Your task to perform on an android device: manage bookmarks in the chrome app Image 0: 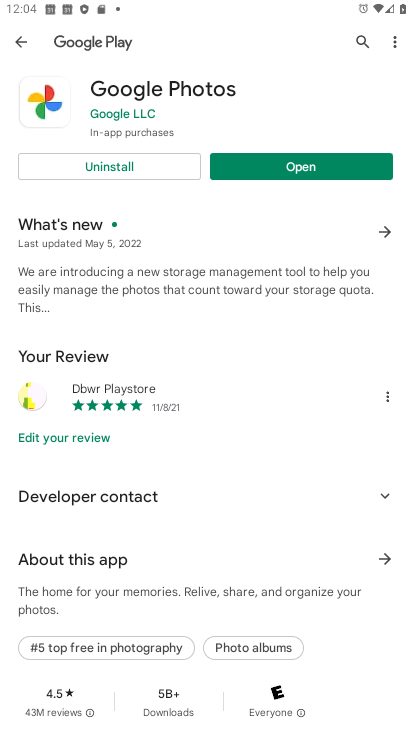
Step 0: drag from (181, 605) to (187, 163)
Your task to perform on an android device: manage bookmarks in the chrome app Image 1: 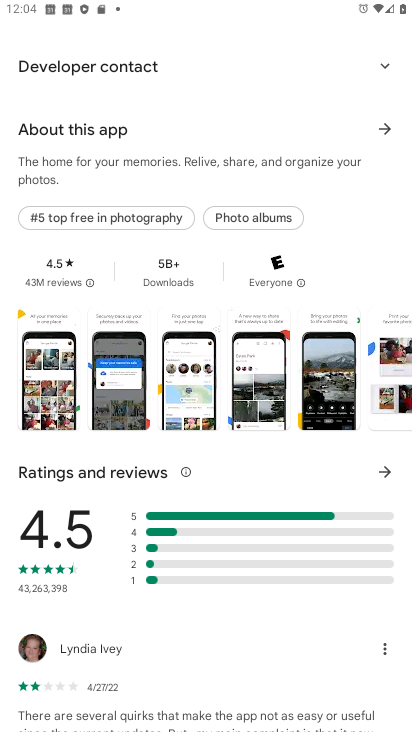
Step 1: drag from (227, 261) to (289, 707)
Your task to perform on an android device: manage bookmarks in the chrome app Image 2: 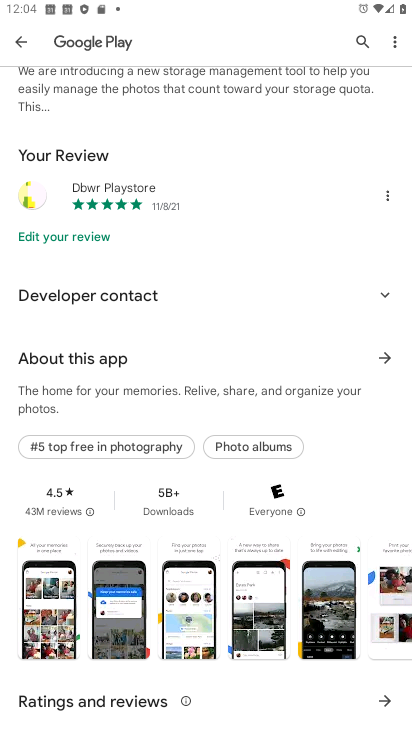
Step 2: drag from (281, 113) to (272, 641)
Your task to perform on an android device: manage bookmarks in the chrome app Image 3: 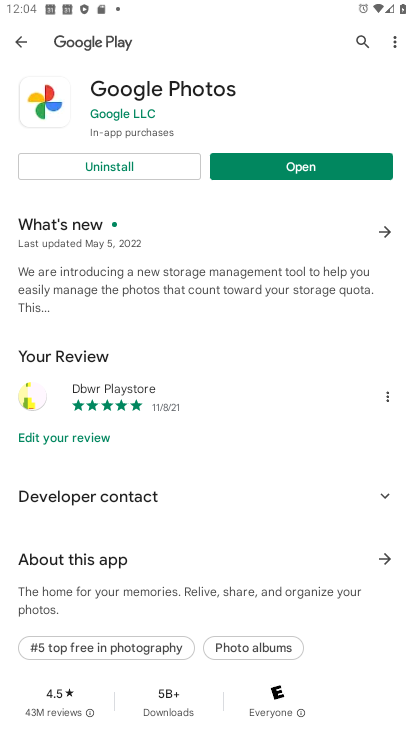
Step 3: click (289, 159)
Your task to perform on an android device: manage bookmarks in the chrome app Image 4: 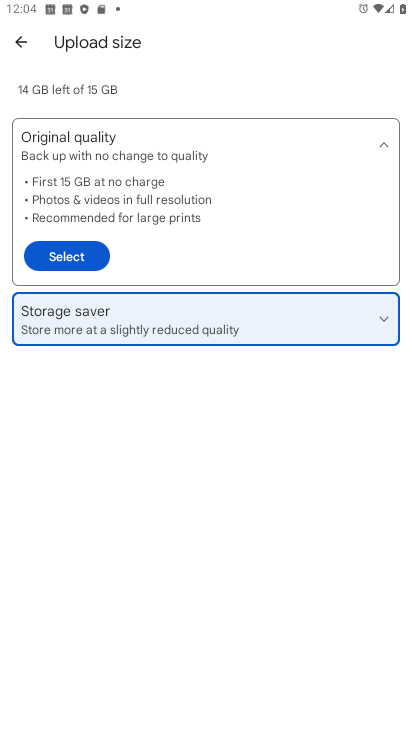
Step 4: click (201, 75)
Your task to perform on an android device: manage bookmarks in the chrome app Image 5: 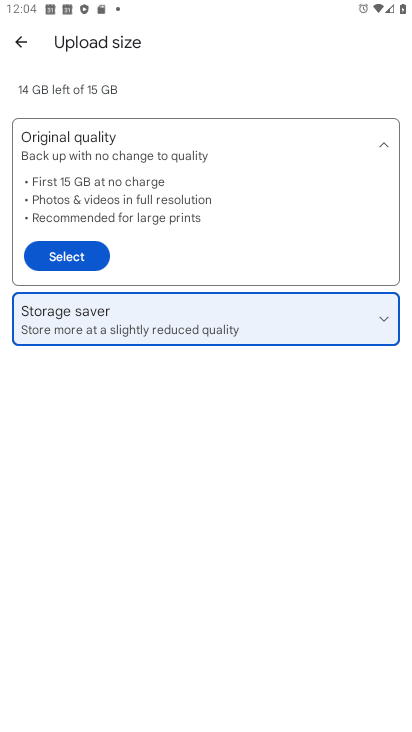
Step 5: drag from (211, 260) to (218, 100)
Your task to perform on an android device: manage bookmarks in the chrome app Image 6: 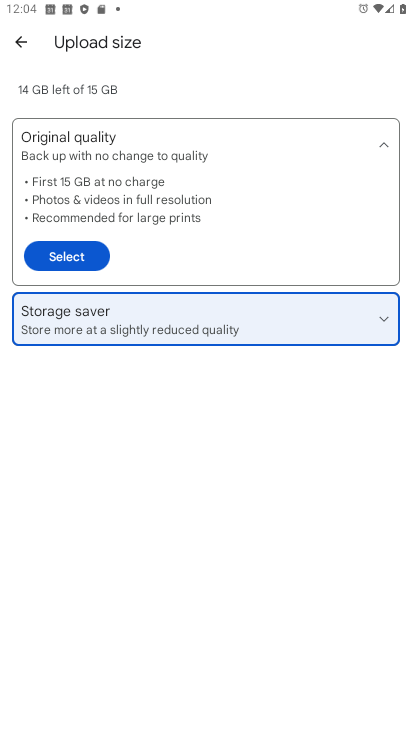
Step 6: click (381, 328)
Your task to perform on an android device: manage bookmarks in the chrome app Image 7: 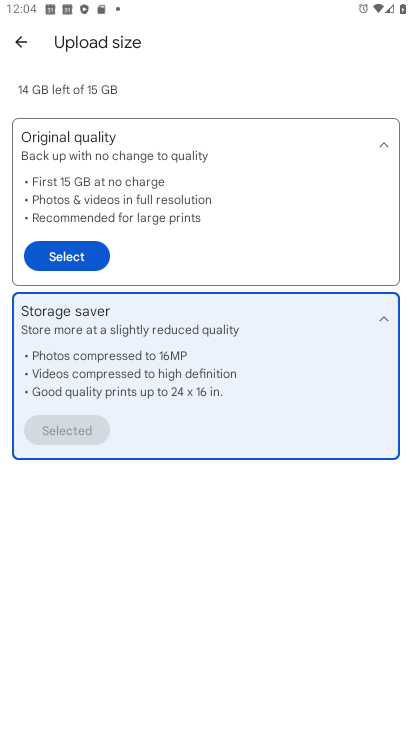
Step 7: task complete